Your task to perform on an android device: Search for Mexican restaurants on Maps Image 0: 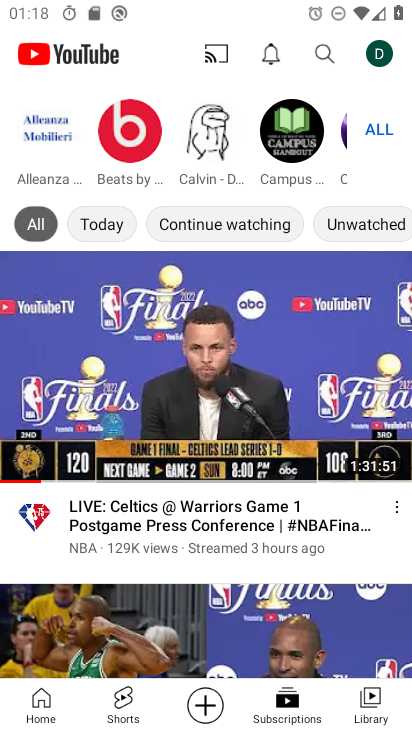
Step 0: press home button
Your task to perform on an android device: Search for Mexican restaurants on Maps Image 1: 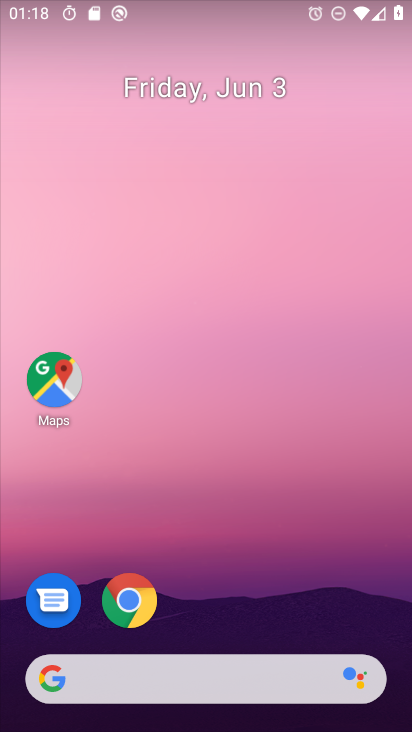
Step 1: click (55, 390)
Your task to perform on an android device: Search for Mexican restaurants on Maps Image 2: 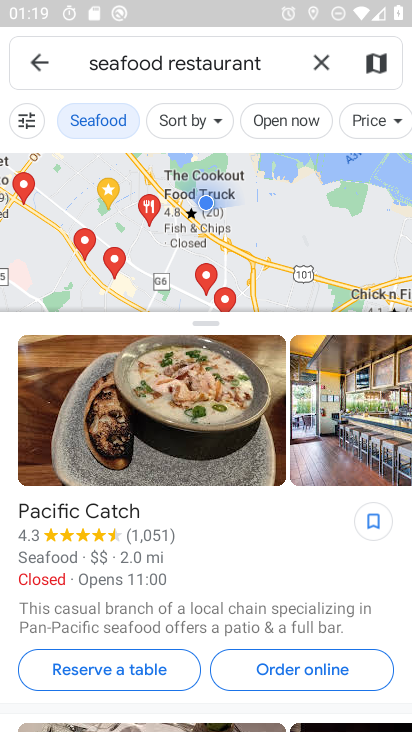
Step 2: click (314, 55)
Your task to perform on an android device: Search for Mexican restaurants on Maps Image 3: 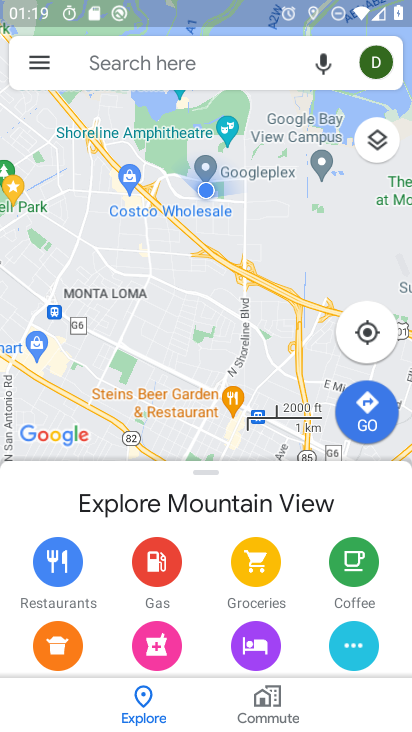
Step 3: click (205, 77)
Your task to perform on an android device: Search for Mexican restaurants on Maps Image 4: 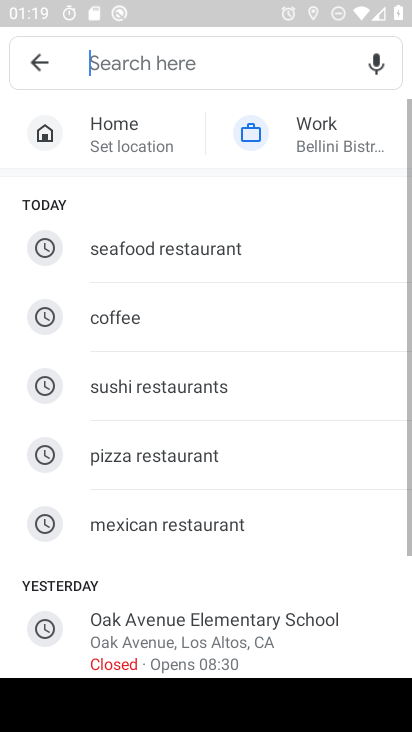
Step 4: click (183, 514)
Your task to perform on an android device: Search for Mexican restaurants on Maps Image 5: 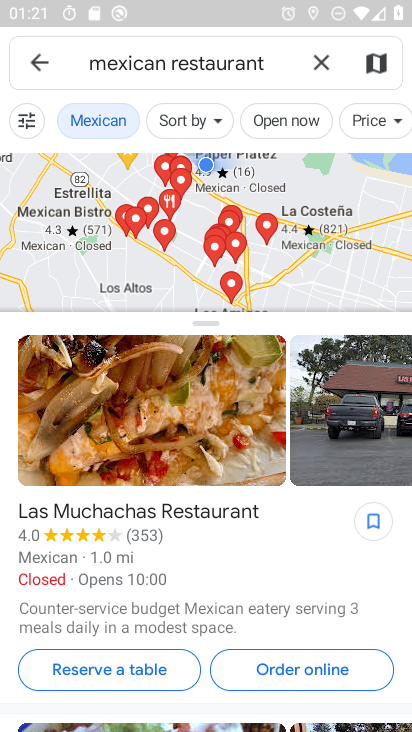
Step 5: task complete